Your task to perform on an android device: Go to Yahoo.com Image 0: 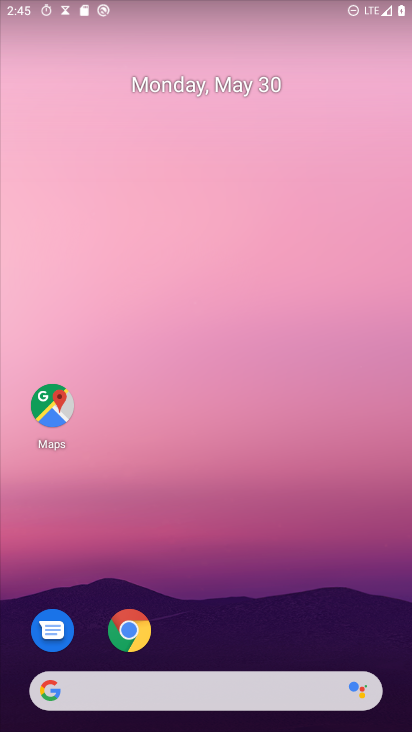
Step 0: drag from (236, 701) to (250, 171)
Your task to perform on an android device: Go to Yahoo.com Image 1: 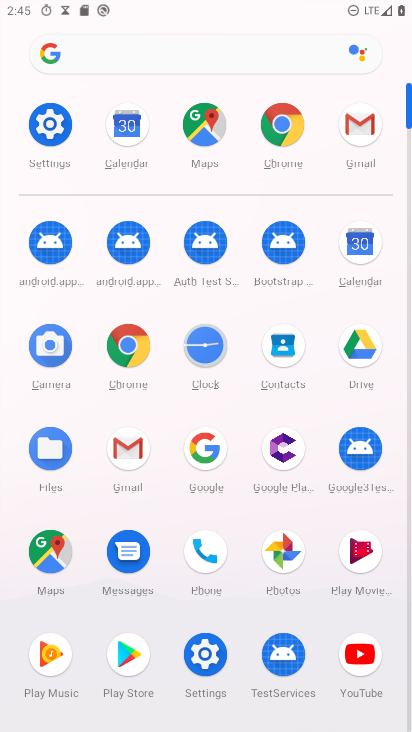
Step 1: click (275, 121)
Your task to perform on an android device: Go to Yahoo.com Image 2: 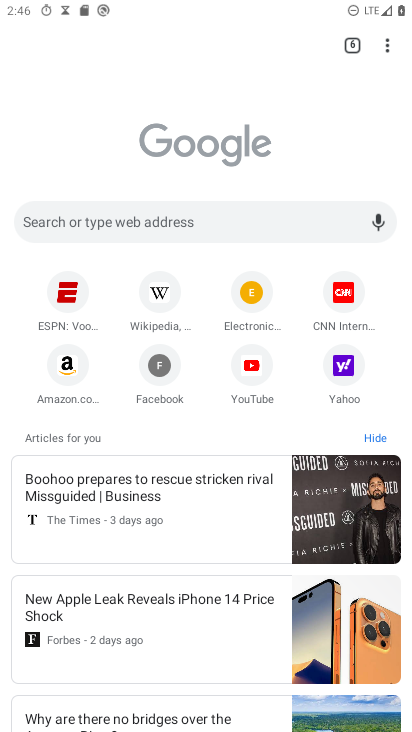
Step 2: click (337, 366)
Your task to perform on an android device: Go to Yahoo.com Image 3: 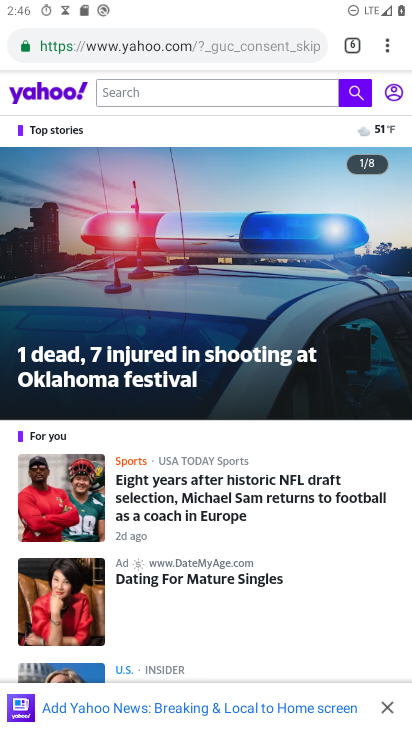
Step 3: task complete